Your task to perform on an android device: open app "Skype" Image 0: 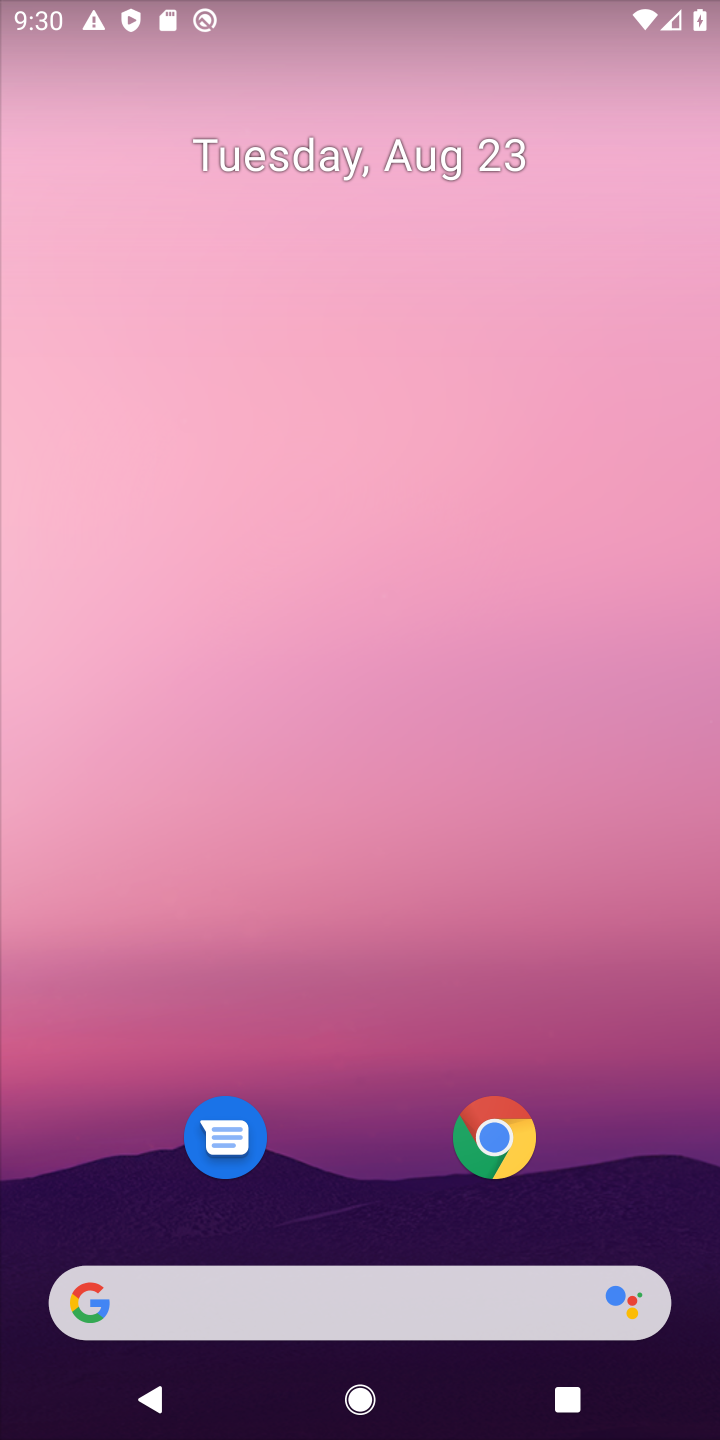
Step 0: drag from (323, 29) to (206, 39)
Your task to perform on an android device: open app "Skype" Image 1: 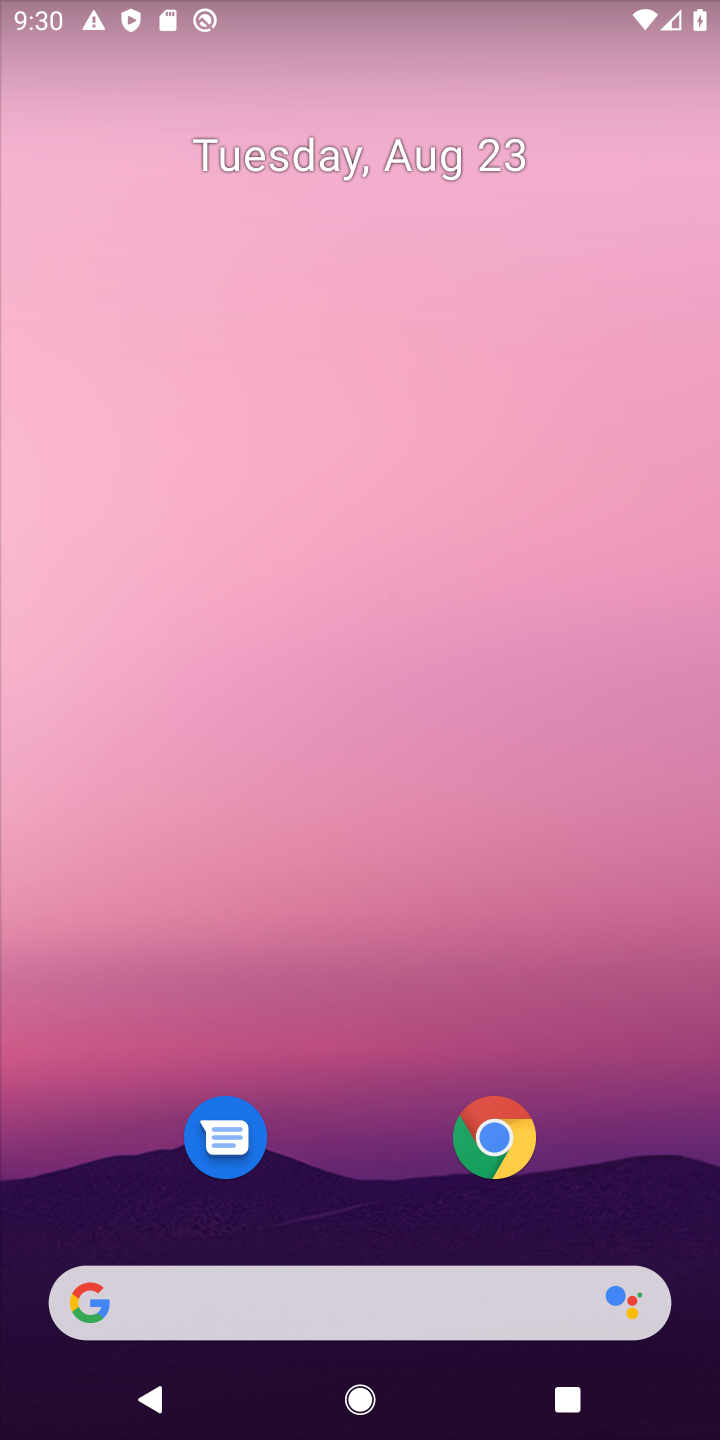
Step 1: drag from (489, 1215) to (510, 225)
Your task to perform on an android device: open app "Skype" Image 2: 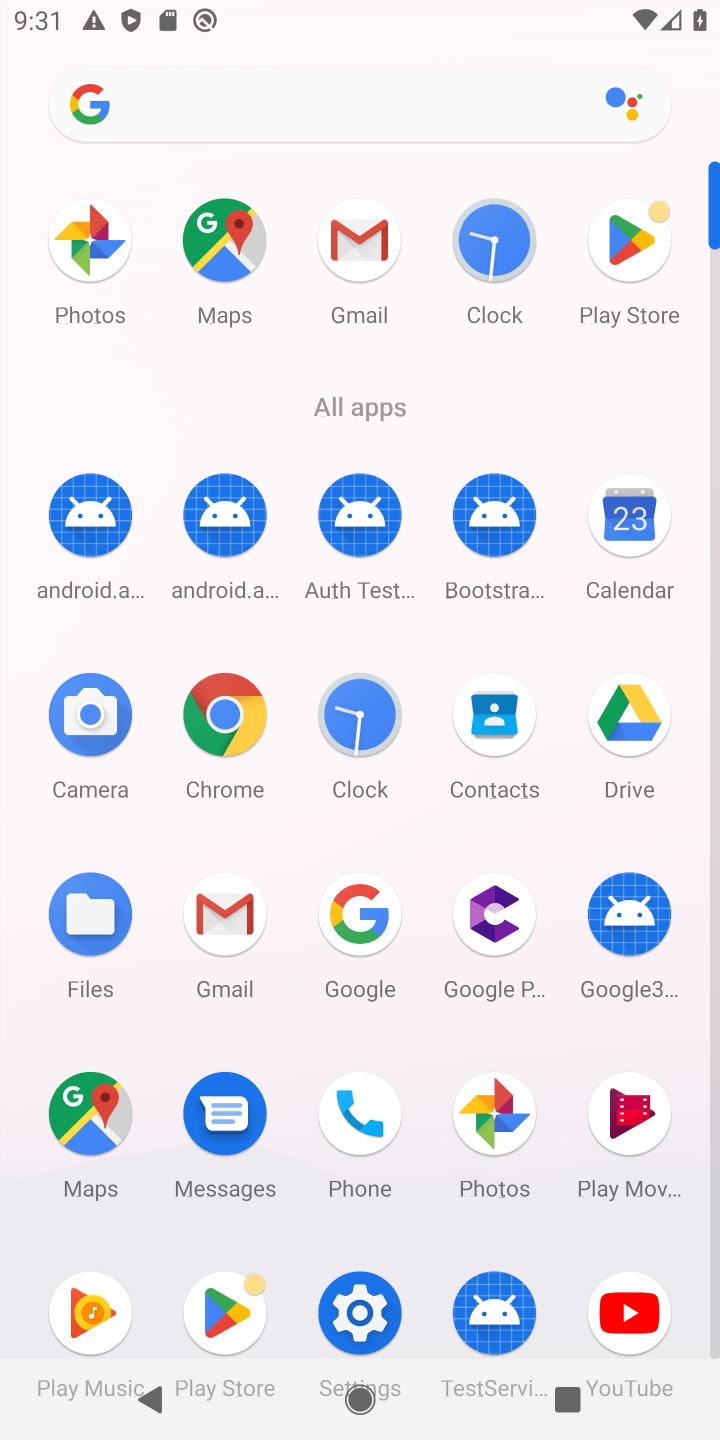
Step 2: click (238, 1308)
Your task to perform on an android device: open app "Skype" Image 3: 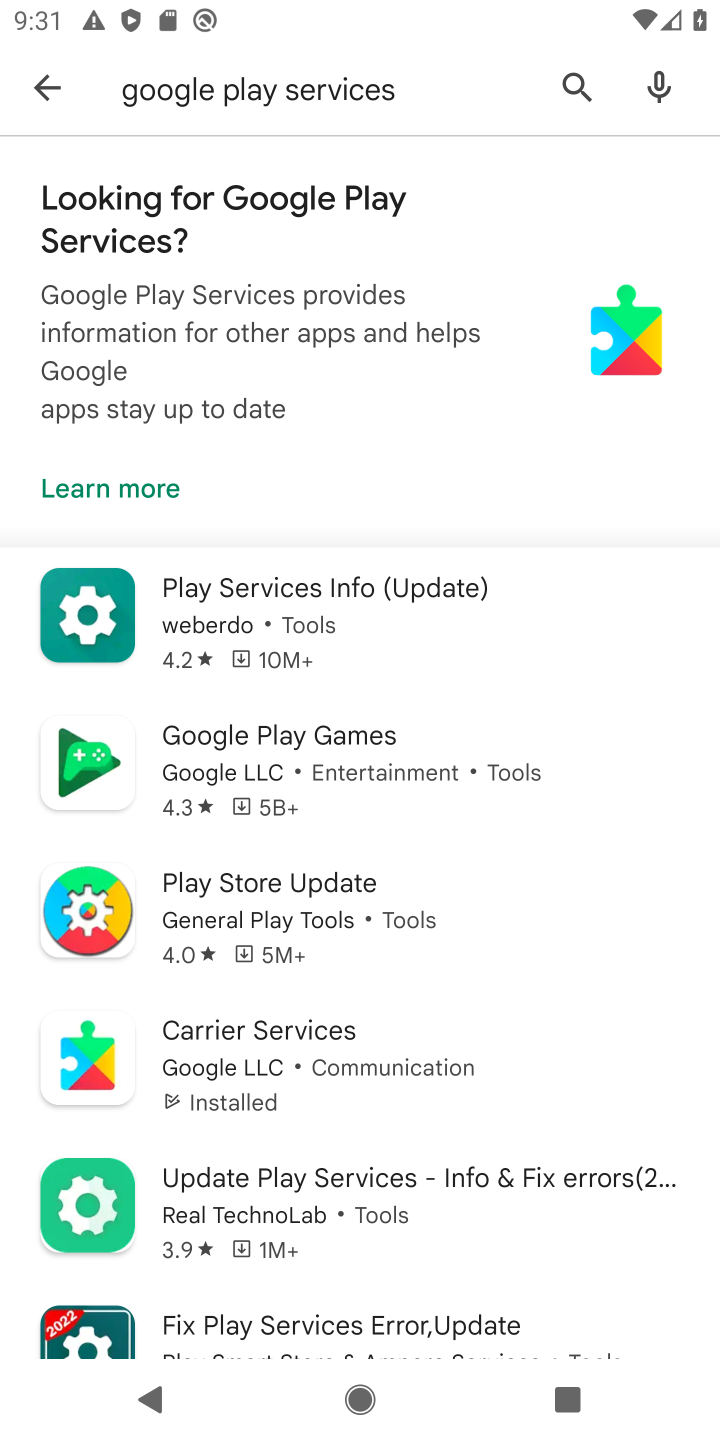
Step 3: task complete